Your task to perform on an android device: toggle airplane mode Image 0: 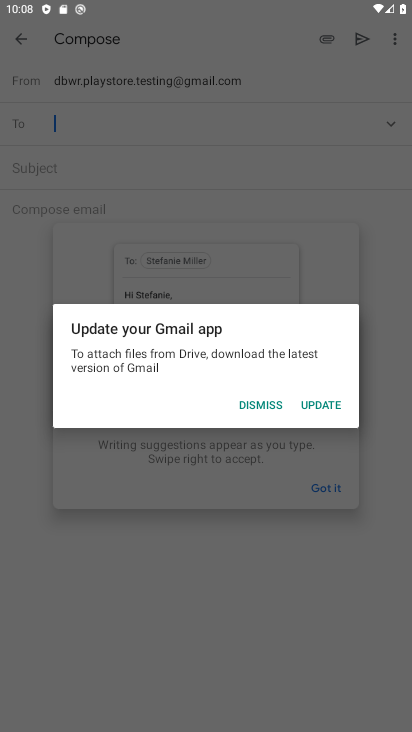
Step 0: press home button
Your task to perform on an android device: toggle airplane mode Image 1: 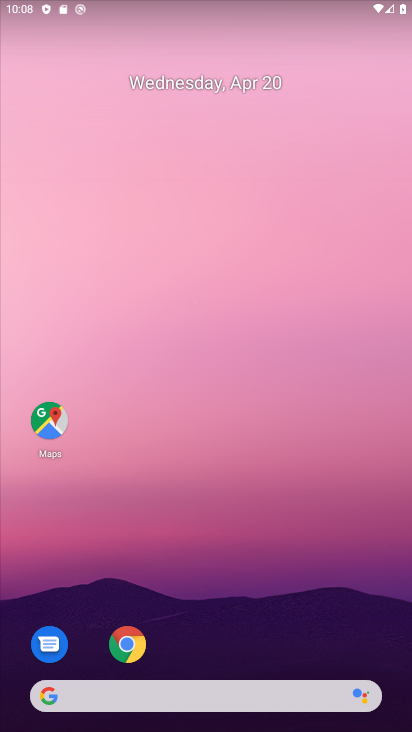
Step 1: drag from (203, 368) to (239, 18)
Your task to perform on an android device: toggle airplane mode Image 2: 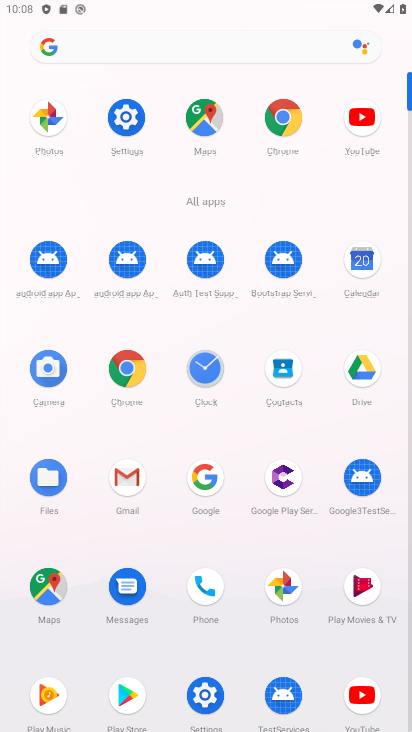
Step 2: click (131, 136)
Your task to perform on an android device: toggle airplane mode Image 3: 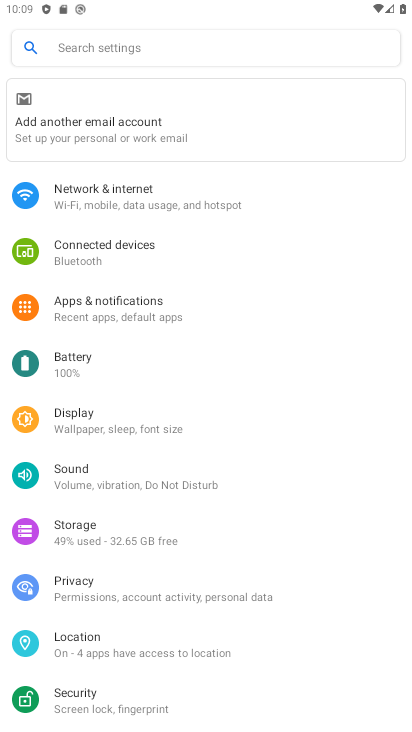
Step 3: click (149, 208)
Your task to perform on an android device: toggle airplane mode Image 4: 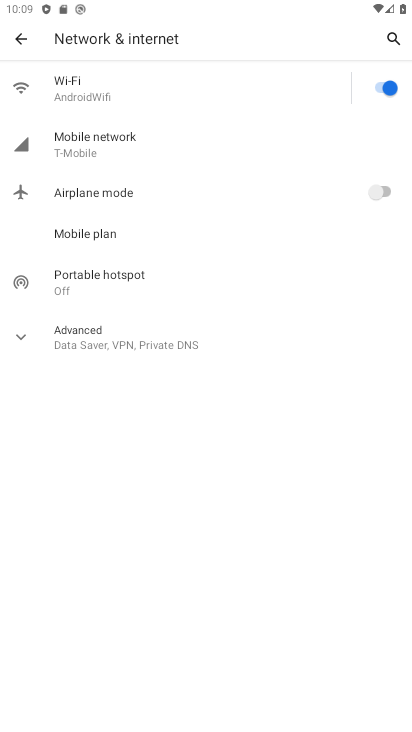
Step 4: click (384, 189)
Your task to perform on an android device: toggle airplane mode Image 5: 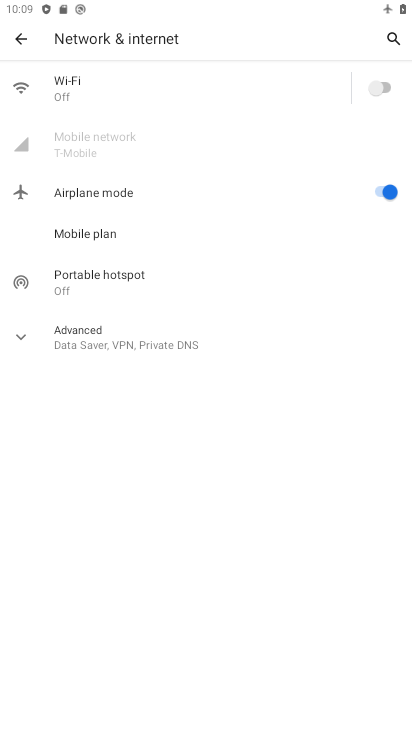
Step 5: task complete